Your task to perform on an android device: uninstall "Adobe Acrobat Reader: Edit PDF" Image 0: 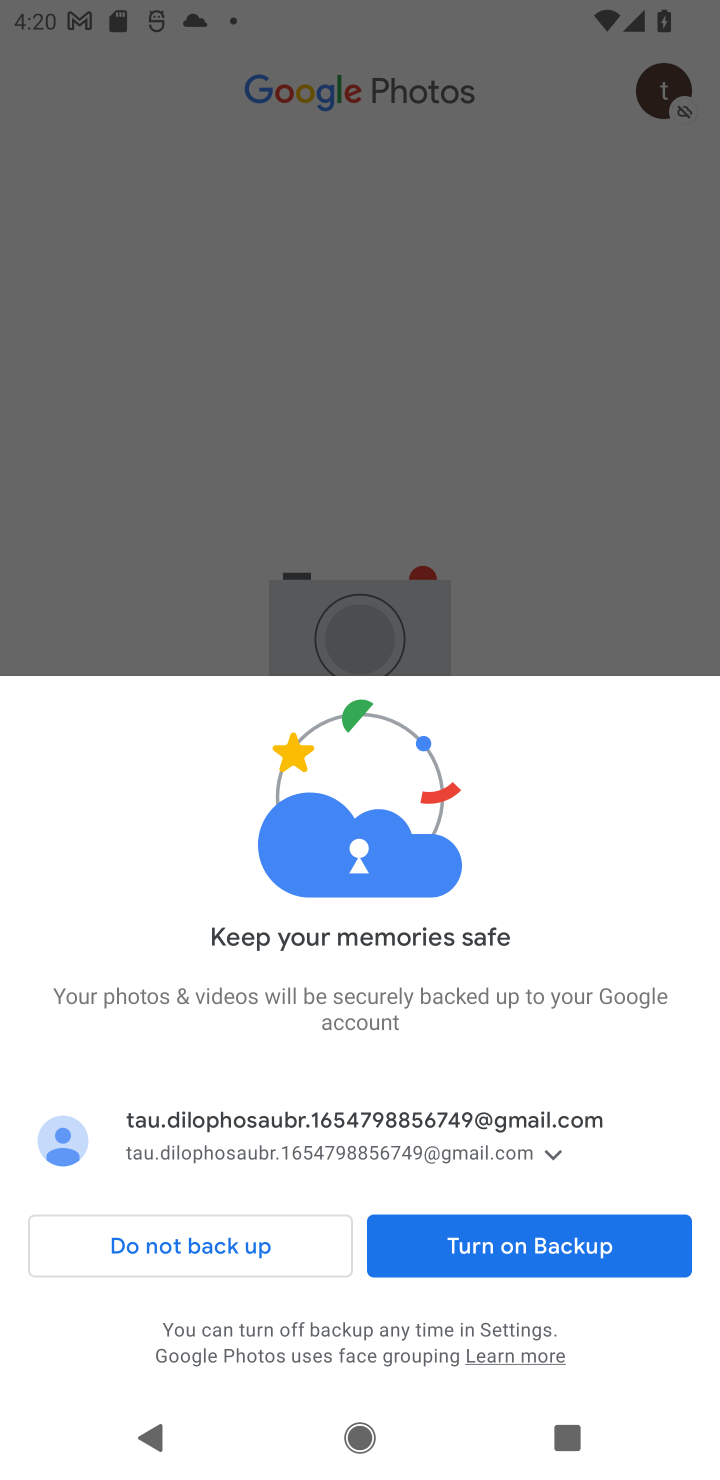
Step 0: press home button
Your task to perform on an android device: uninstall "Adobe Acrobat Reader: Edit PDF" Image 1: 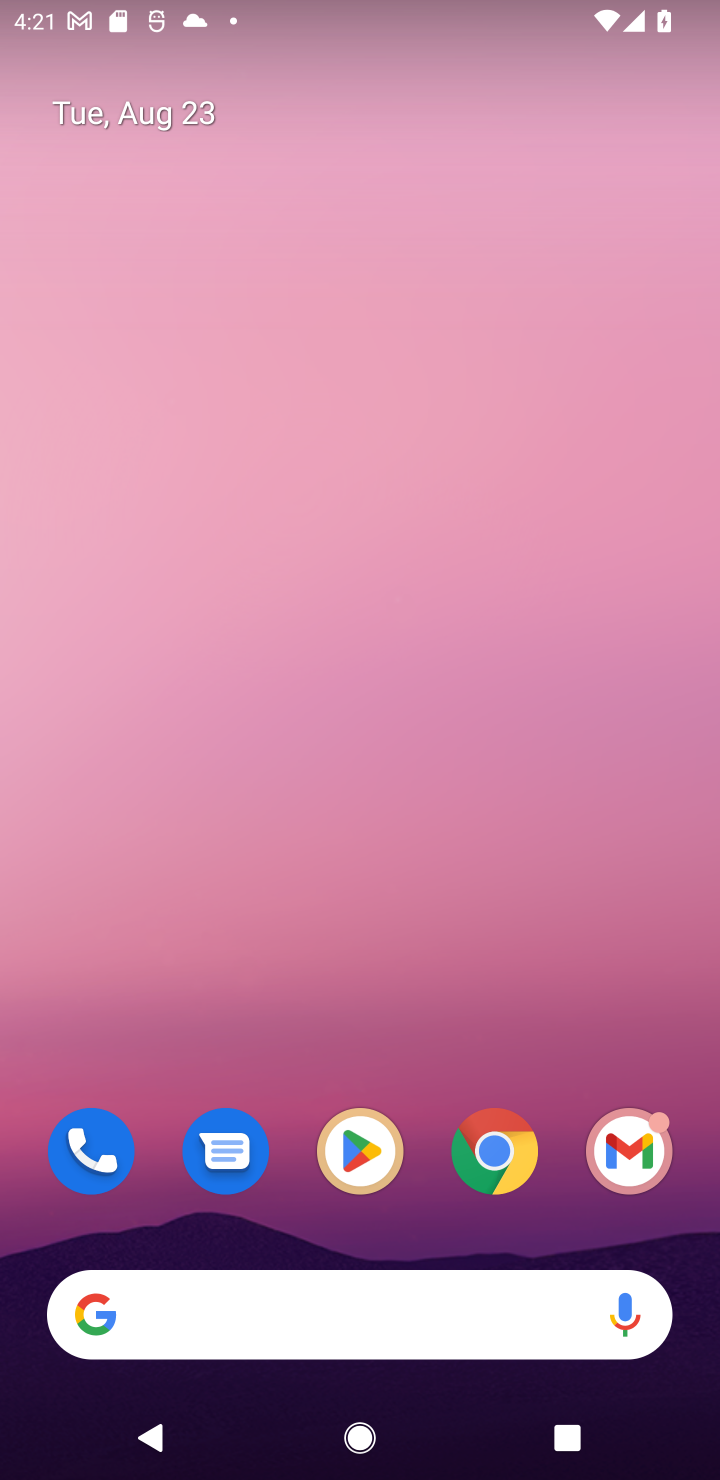
Step 1: click (348, 1138)
Your task to perform on an android device: uninstall "Adobe Acrobat Reader: Edit PDF" Image 2: 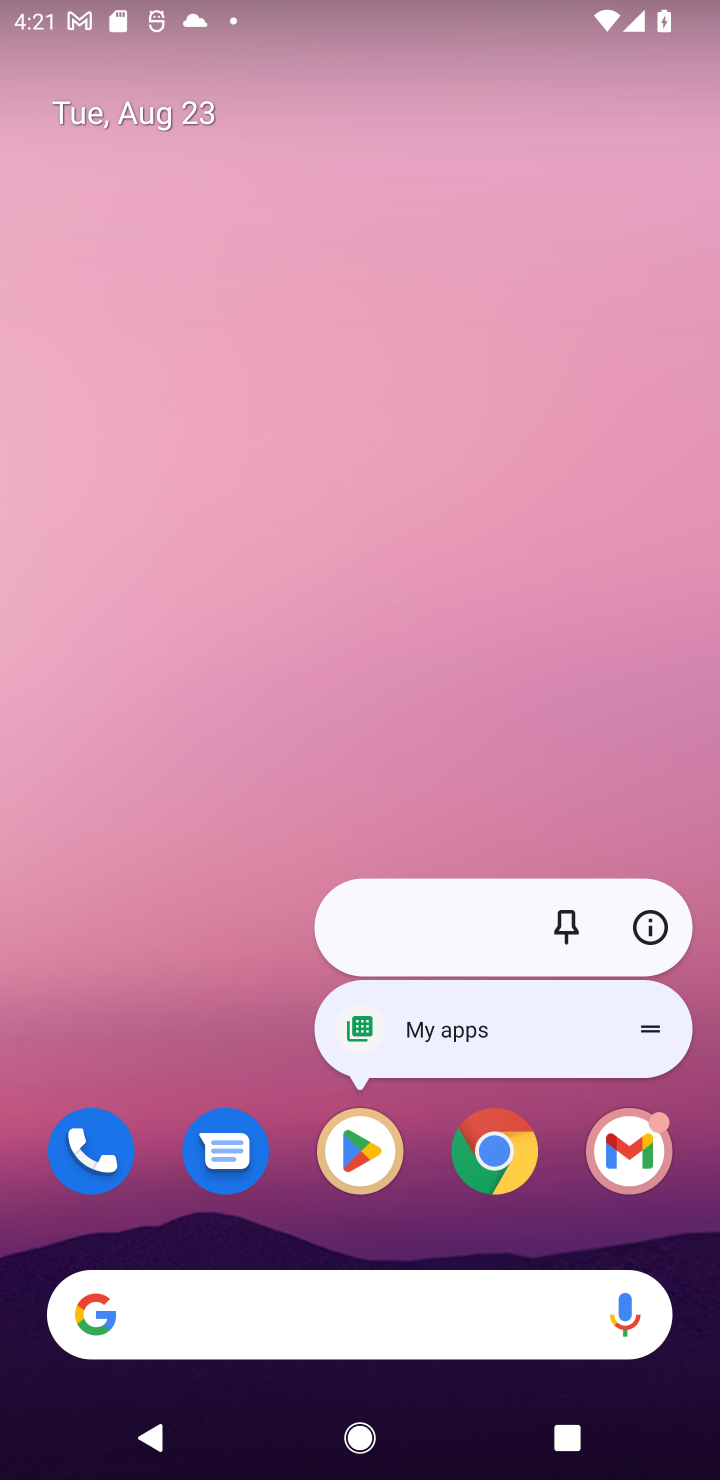
Step 2: click (348, 1138)
Your task to perform on an android device: uninstall "Adobe Acrobat Reader: Edit PDF" Image 3: 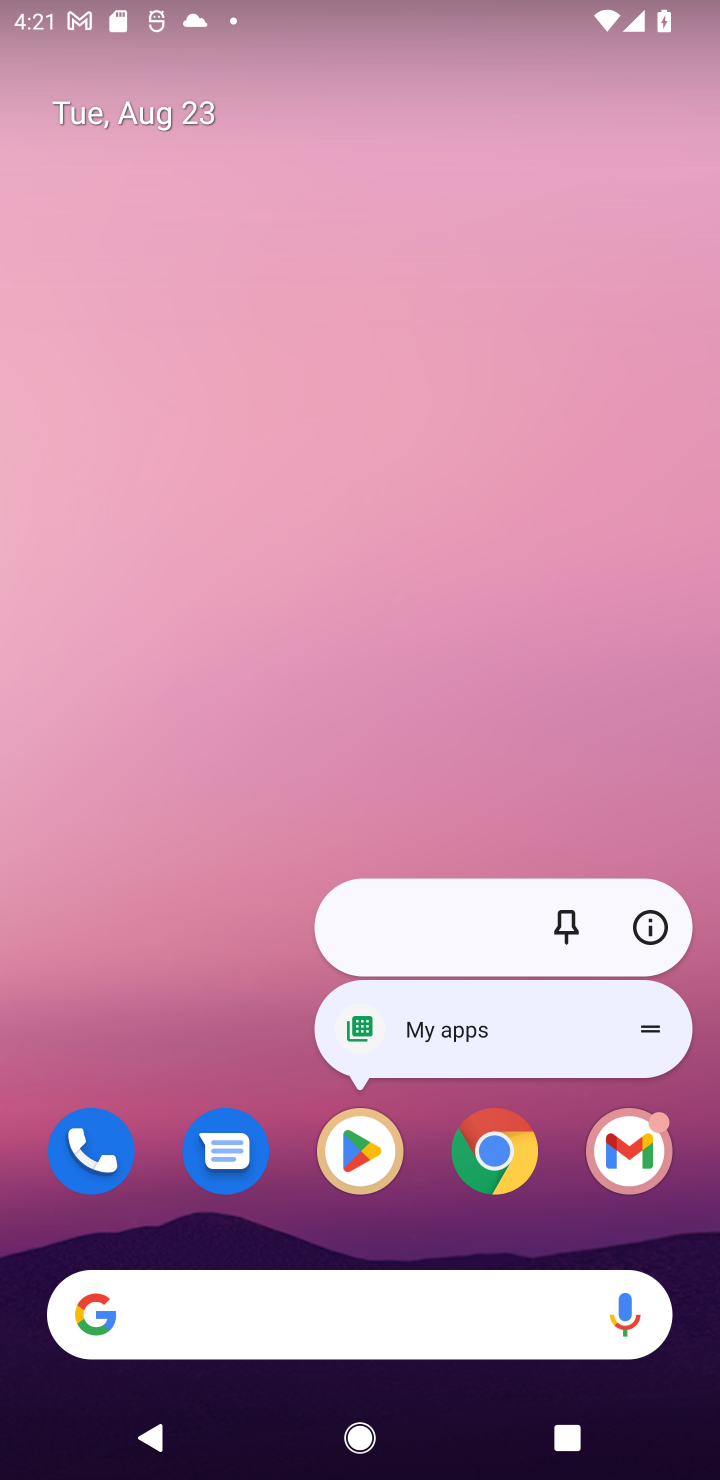
Step 3: click (348, 1138)
Your task to perform on an android device: uninstall "Adobe Acrobat Reader: Edit PDF" Image 4: 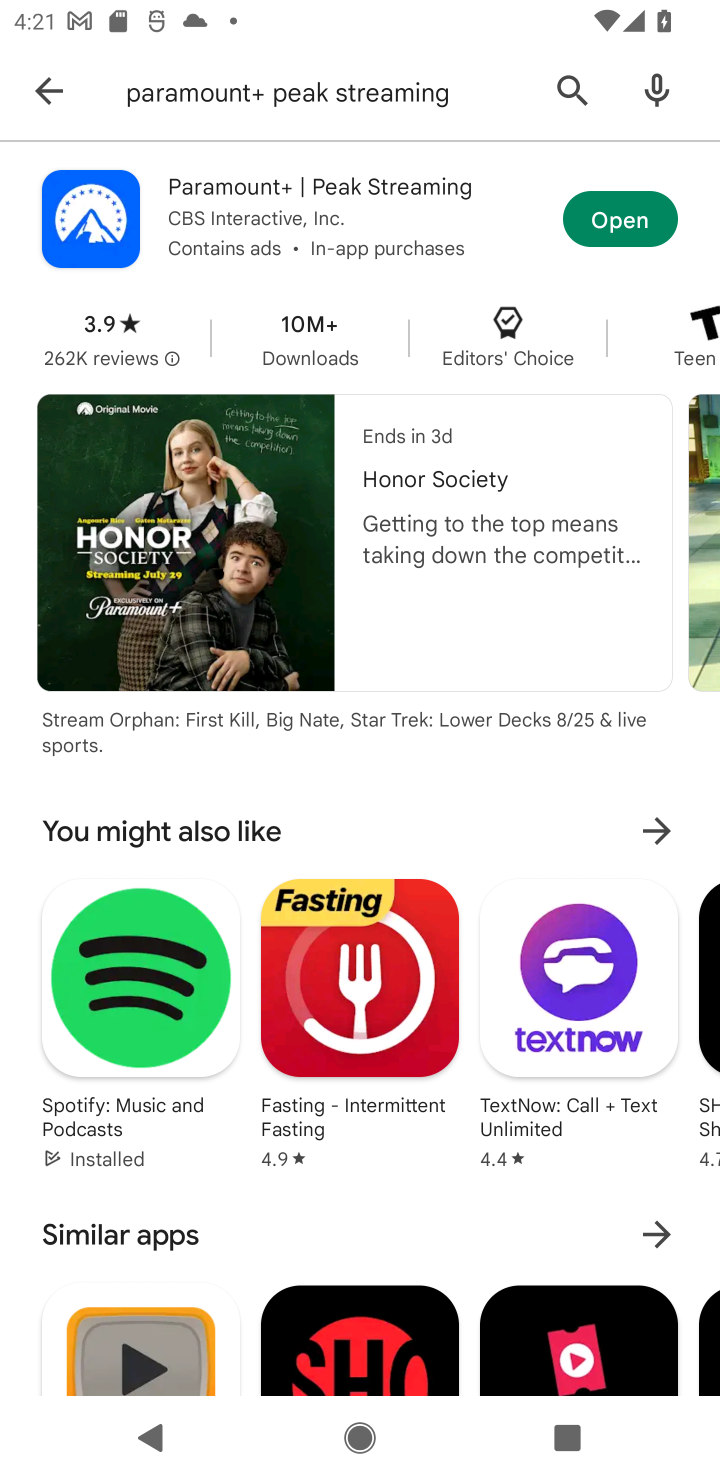
Step 4: click (553, 98)
Your task to perform on an android device: uninstall "Adobe Acrobat Reader: Edit PDF" Image 5: 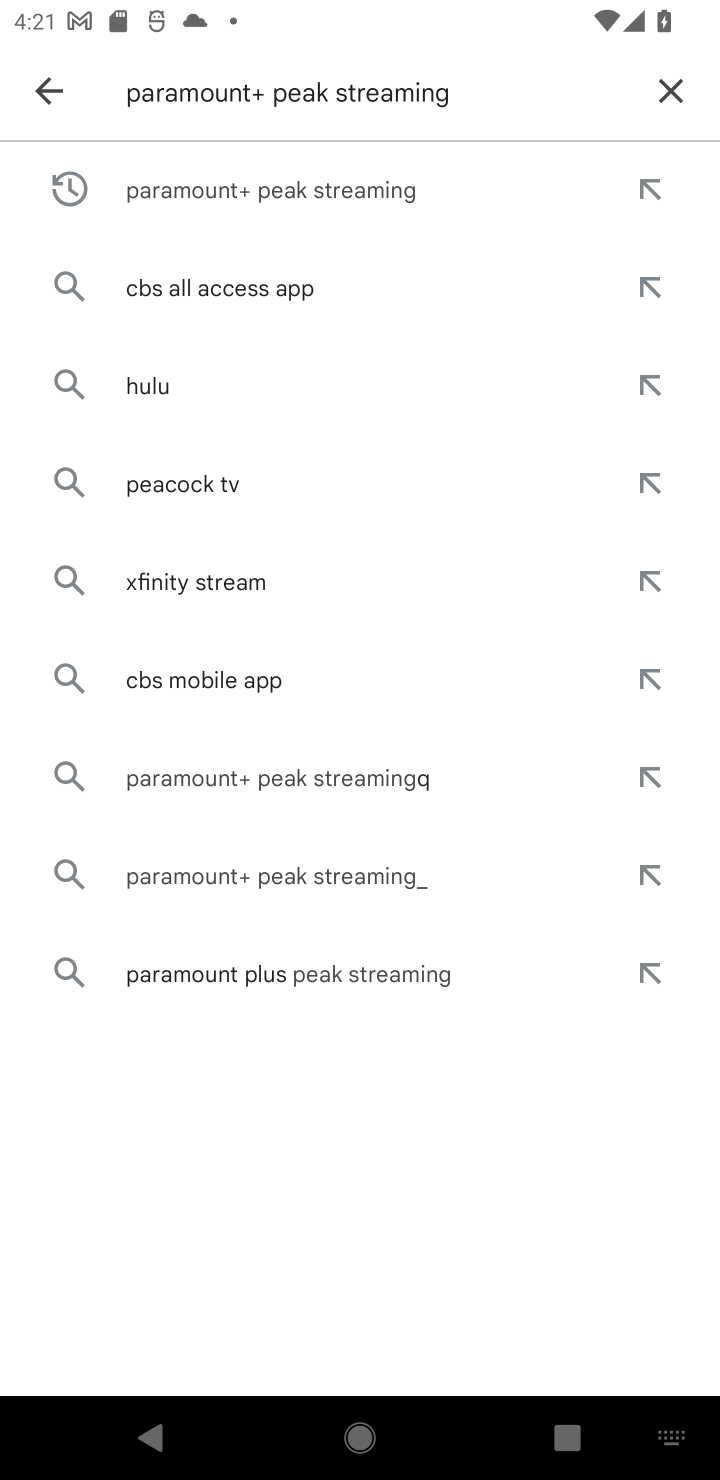
Step 5: click (670, 85)
Your task to perform on an android device: uninstall "Adobe Acrobat Reader: Edit PDF" Image 6: 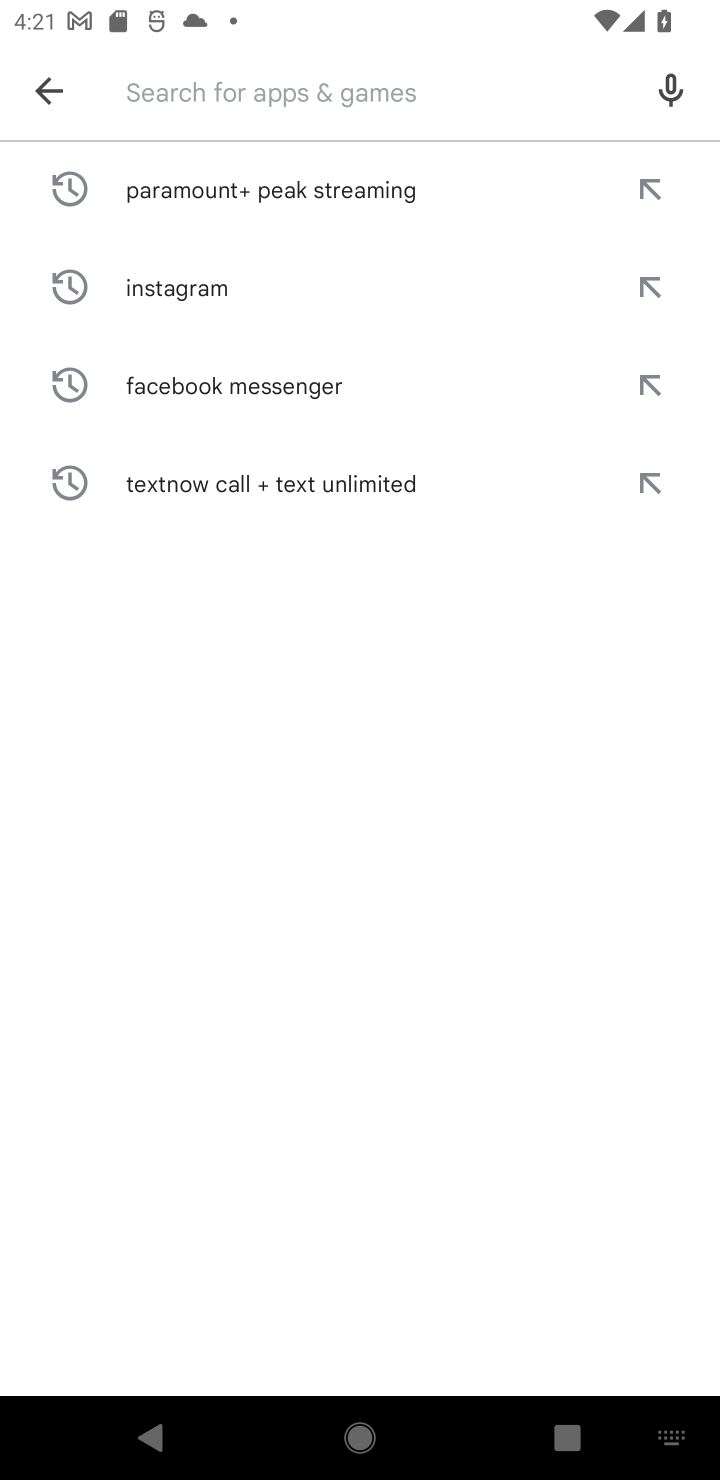
Step 6: type "Adobe Acrobat Reader: Edit PDF"
Your task to perform on an android device: uninstall "Adobe Acrobat Reader: Edit PDF" Image 7: 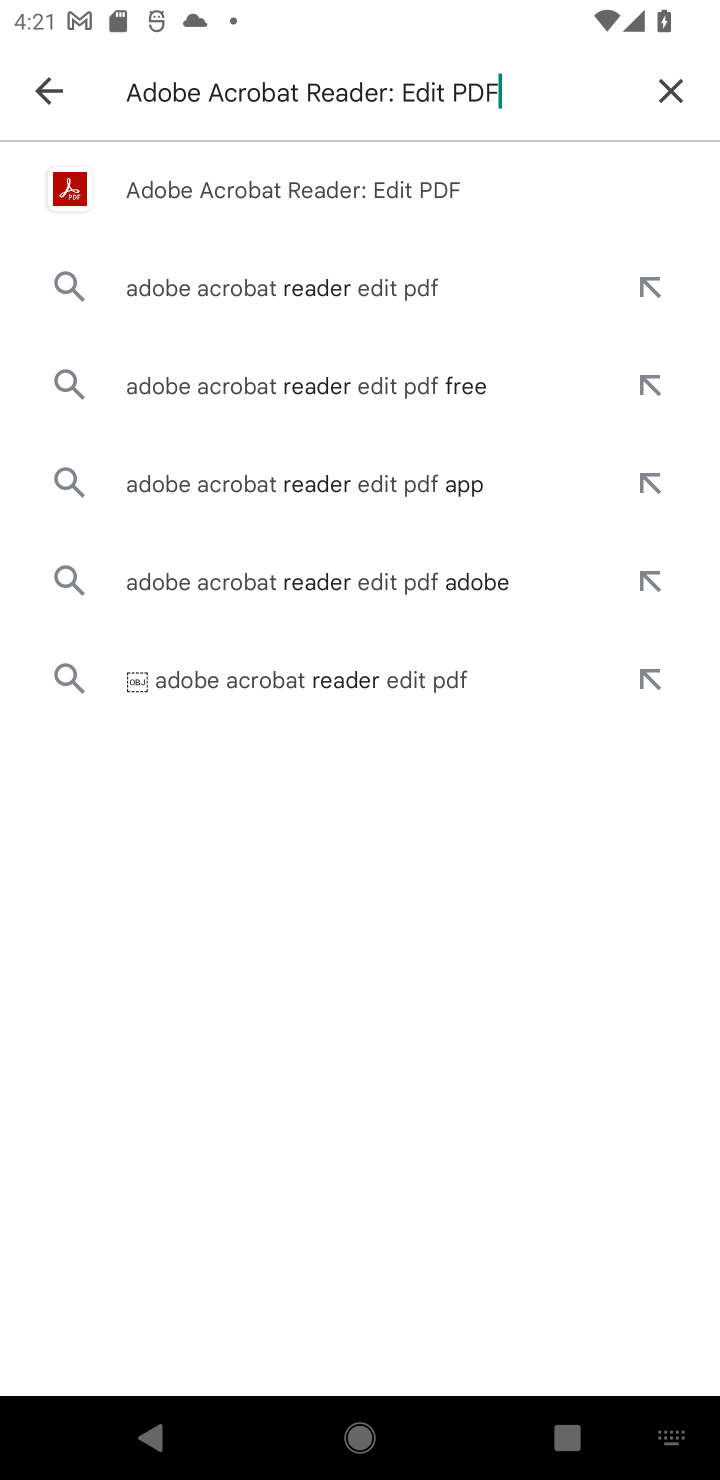
Step 7: click (322, 186)
Your task to perform on an android device: uninstall "Adobe Acrobat Reader: Edit PDF" Image 8: 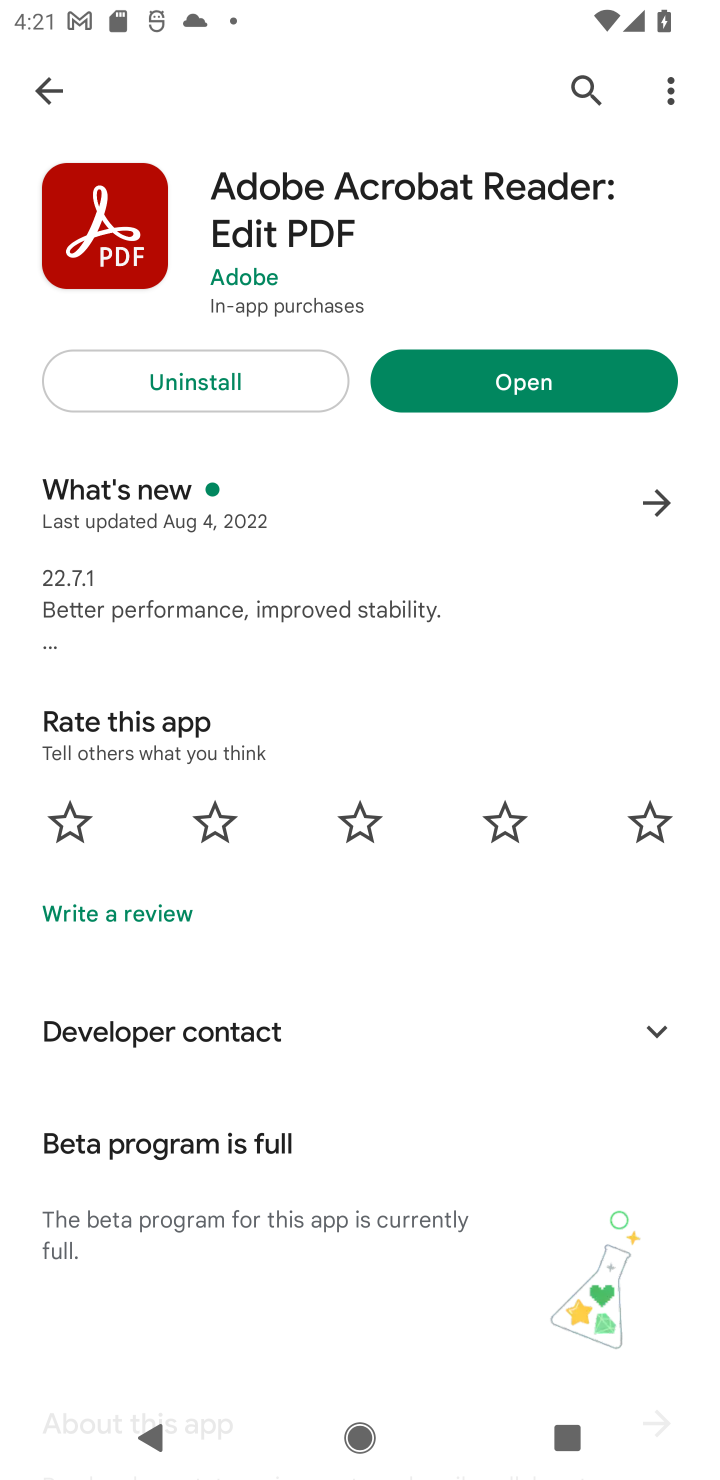
Step 8: click (206, 373)
Your task to perform on an android device: uninstall "Adobe Acrobat Reader: Edit PDF" Image 9: 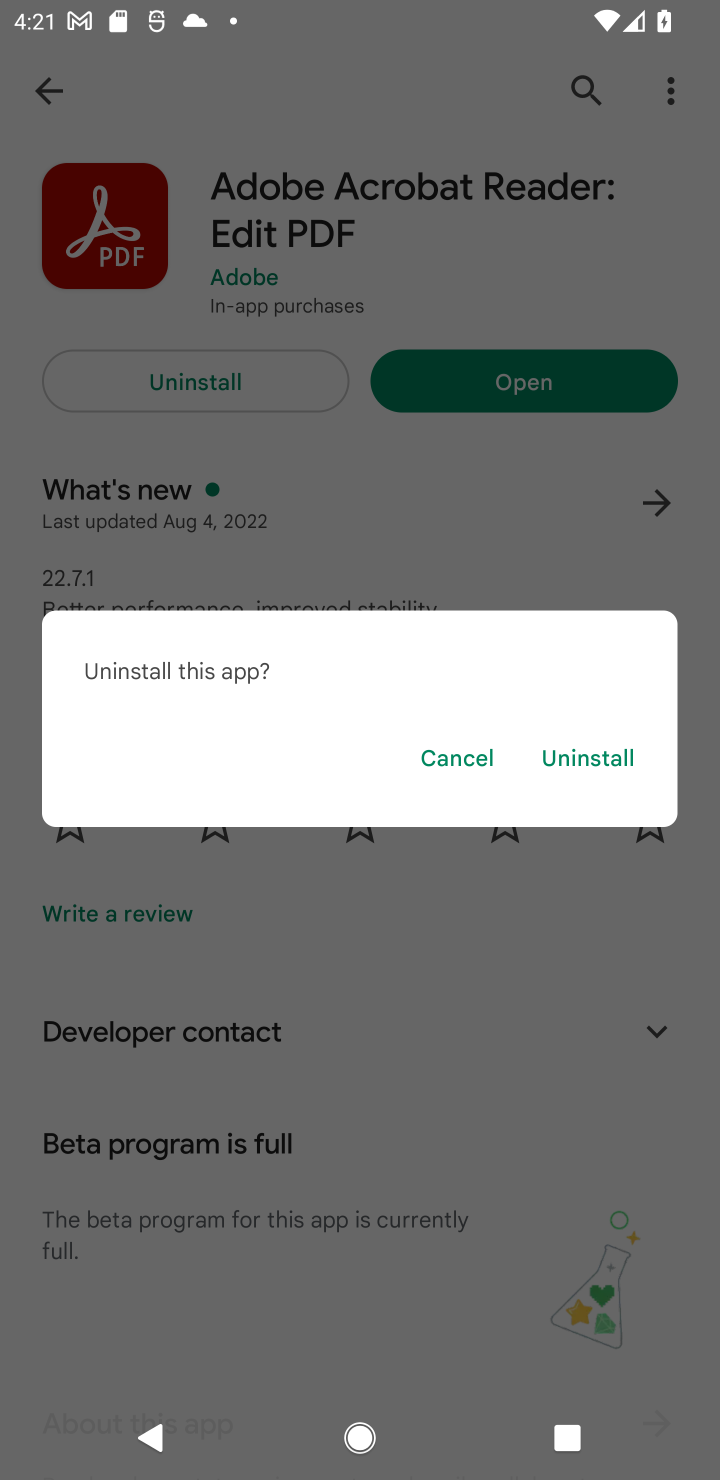
Step 9: click (572, 759)
Your task to perform on an android device: uninstall "Adobe Acrobat Reader: Edit PDF" Image 10: 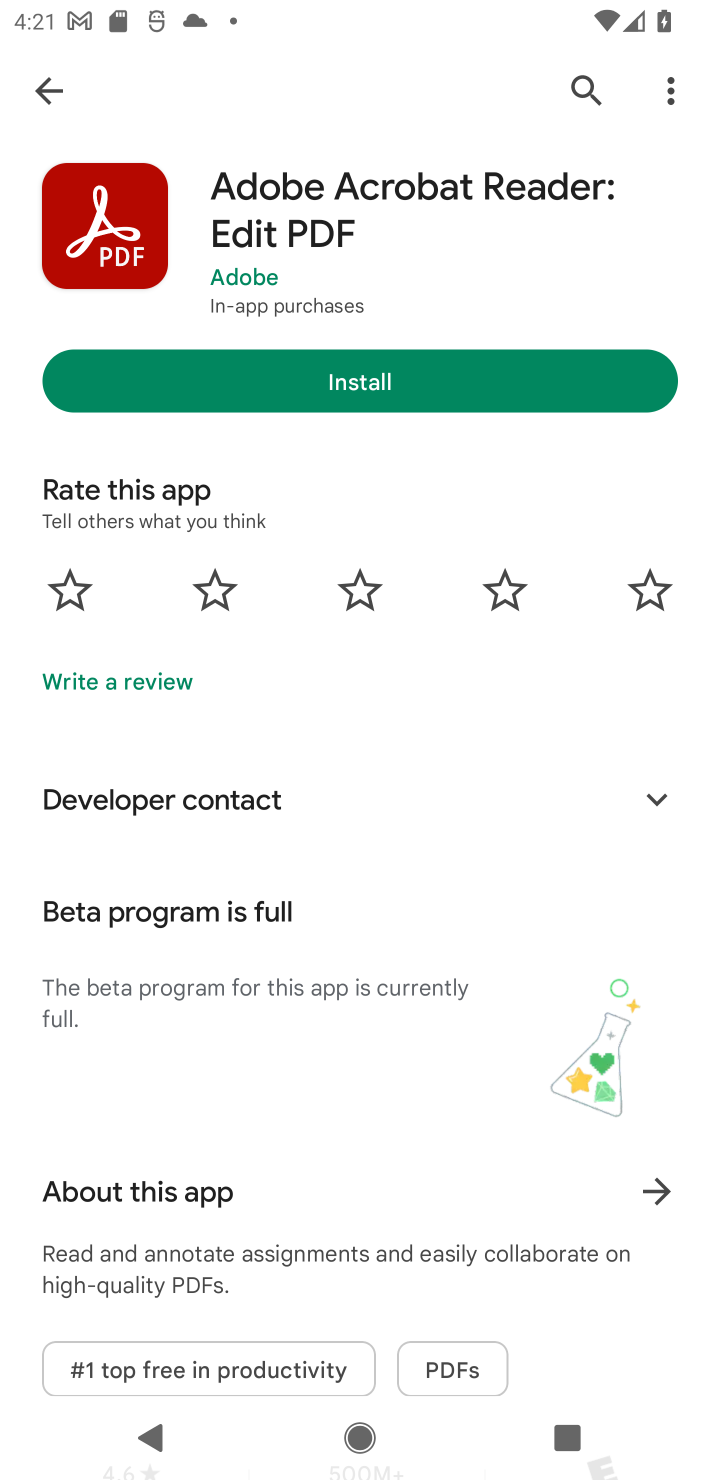
Step 10: task complete